Your task to perform on an android device: change text size in settings app Image 0: 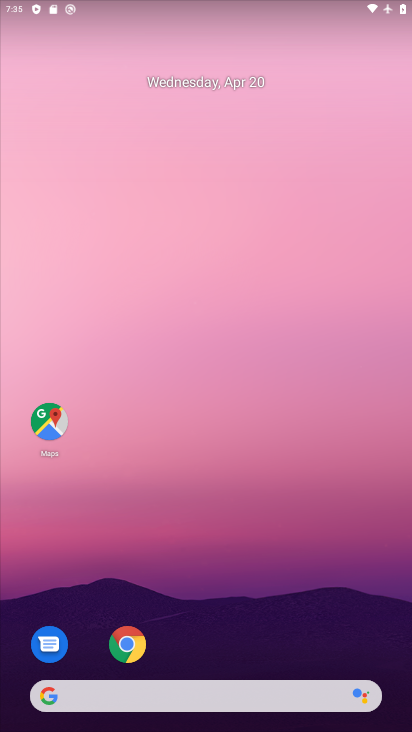
Step 0: drag from (328, 618) to (294, 30)
Your task to perform on an android device: change text size in settings app Image 1: 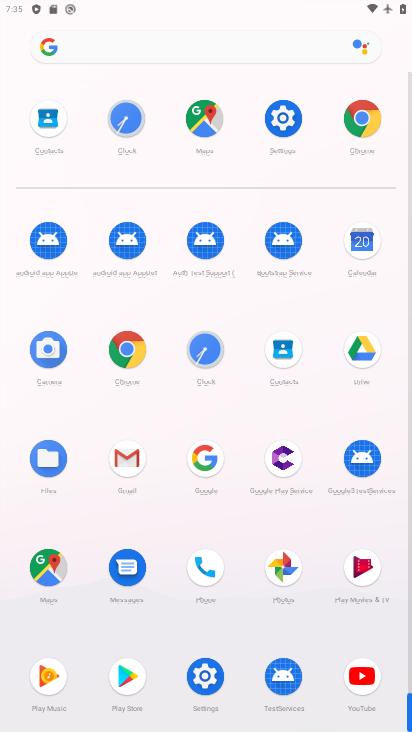
Step 1: click (283, 119)
Your task to perform on an android device: change text size in settings app Image 2: 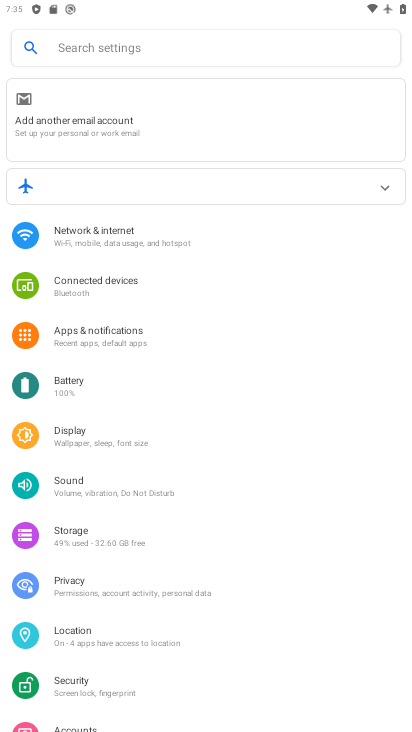
Step 2: click (89, 436)
Your task to perform on an android device: change text size in settings app Image 3: 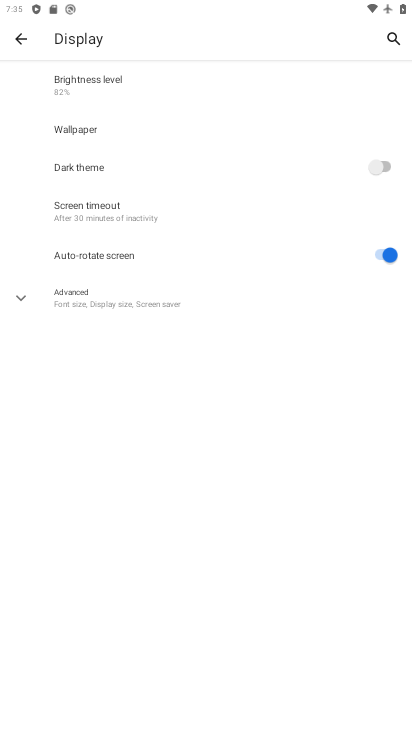
Step 3: click (143, 309)
Your task to perform on an android device: change text size in settings app Image 4: 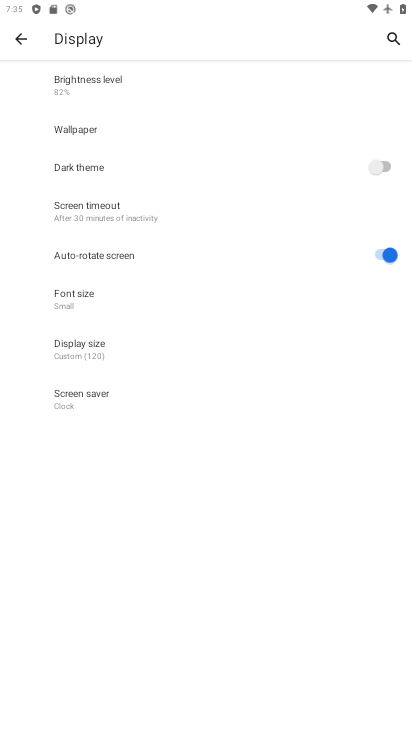
Step 4: click (114, 299)
Your task to perform on an android device: change text size in settings app Image 5: 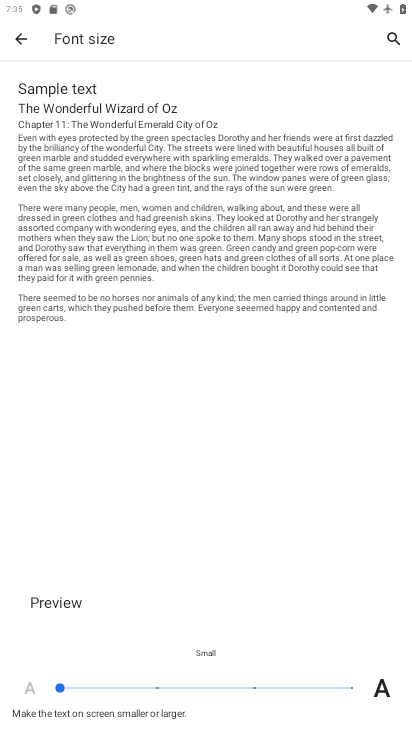
Step 5: click (159, 682)
Your task to perform on an android device: change text size in settings app Image 6: 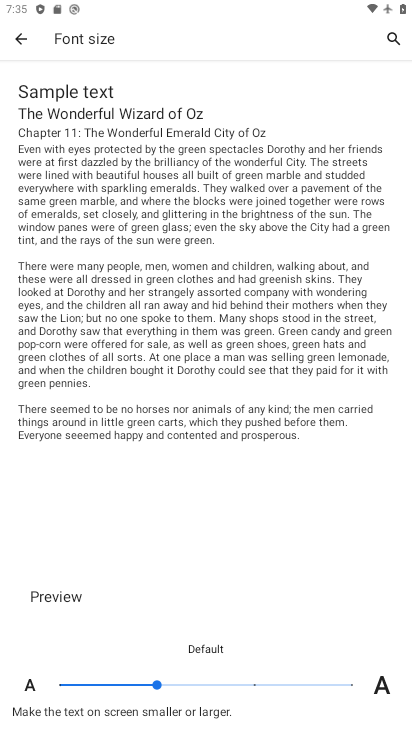
Step 6: task complete